Your task to perform on an android device: Show me recent news Image 0: 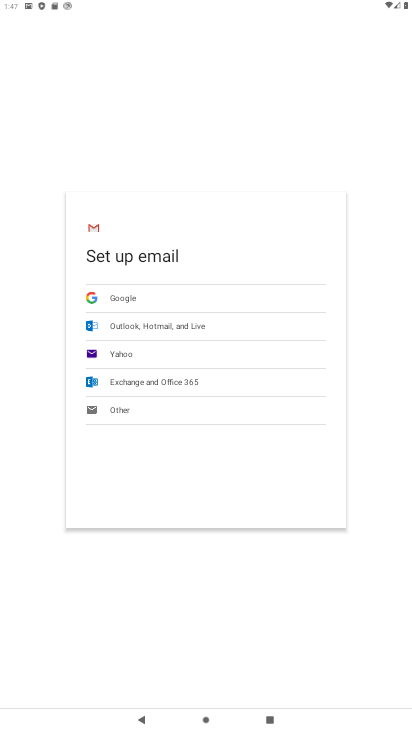
Step 0: press home button
Your task to perform on an android device: Show me recent news Image 1: 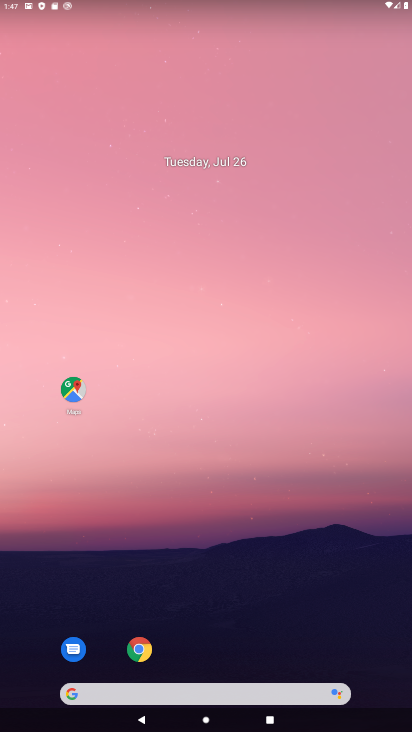
Step 1: drag from (177, 696) to (162, 128)
Your task to perform on an android device: Show me recent news Image 2: 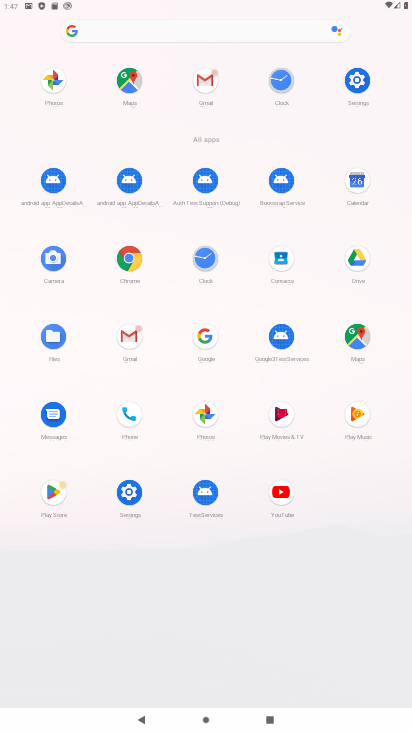
Step 2: click (127, 256)
Your task to perform on an android device: Show me recent news Image 3: 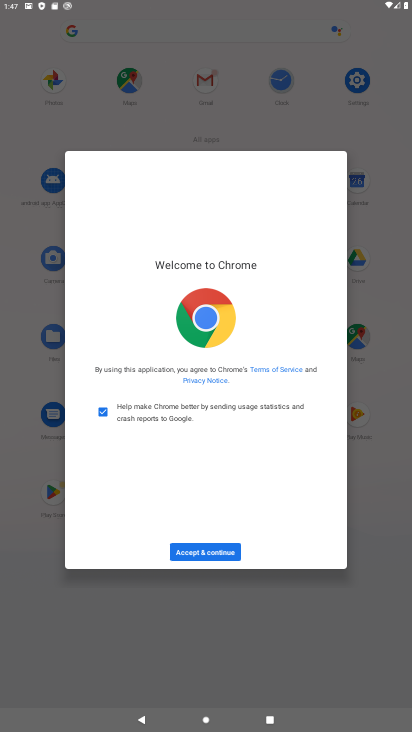
Step 3: click (196, 545)
Your task to perform on an android device: Show me recent news Image 4: 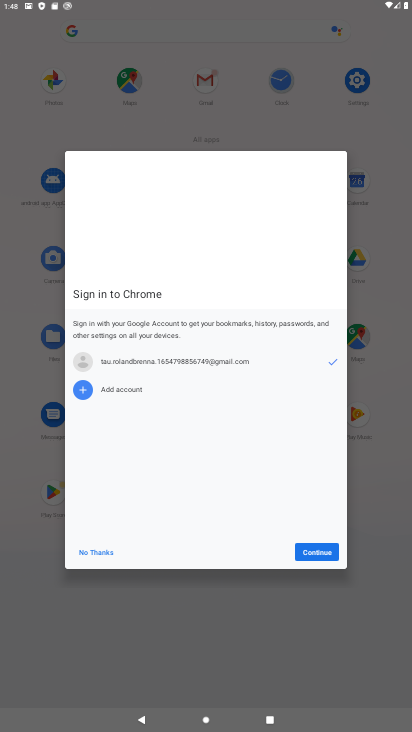
Step 4: click (308, 552)
Your task to perform on an android device: Show me recent news Image 5: 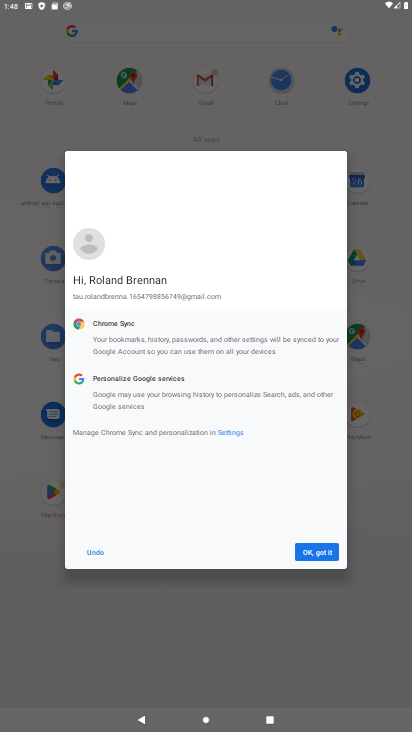
Step 5: click (308, 552)
Your task to perform on an android device: Show me recent news Image 6: 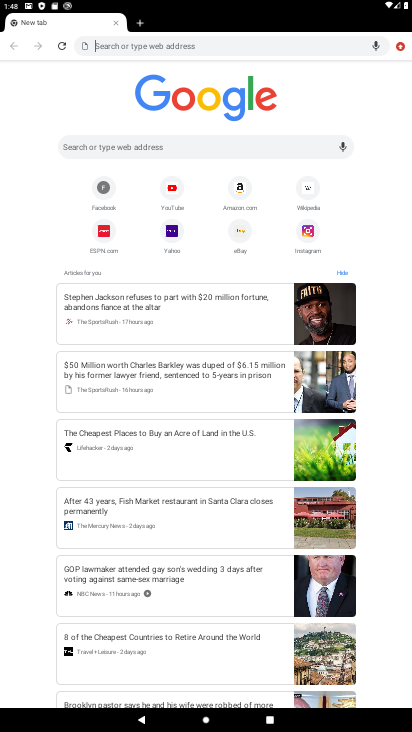
Step 6: click (236, 145)
Your task to perform on an android device: Show me recent news Image 7: 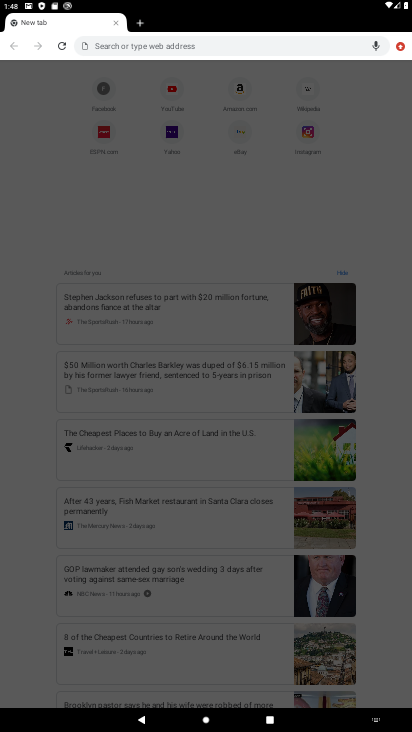
Step 7: type "recent news"
Your task to perform on an android device: Show me recent news Image 8: 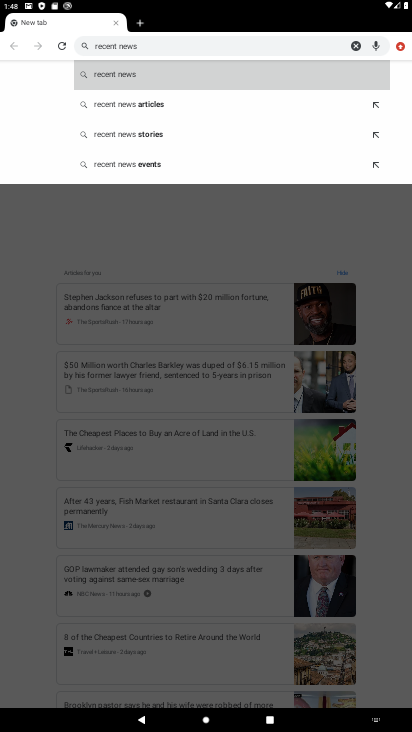
Step 8: click (139, 76)
Your task to perform on an android device: Show me recent news Image 9: 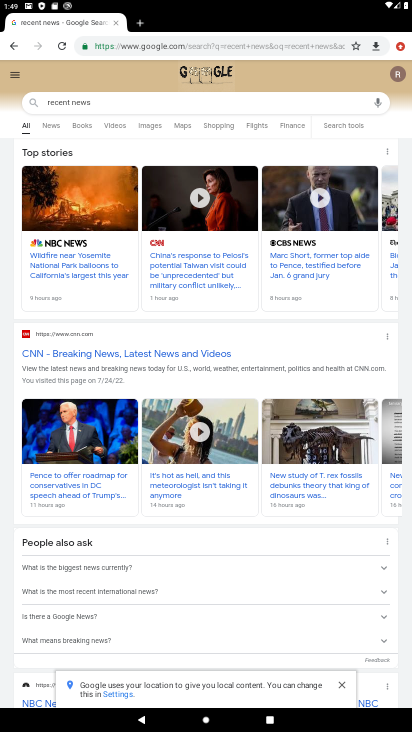
Step 9: click (114, 276)
Your task to perform on an android device: Show me recent news Image 10: 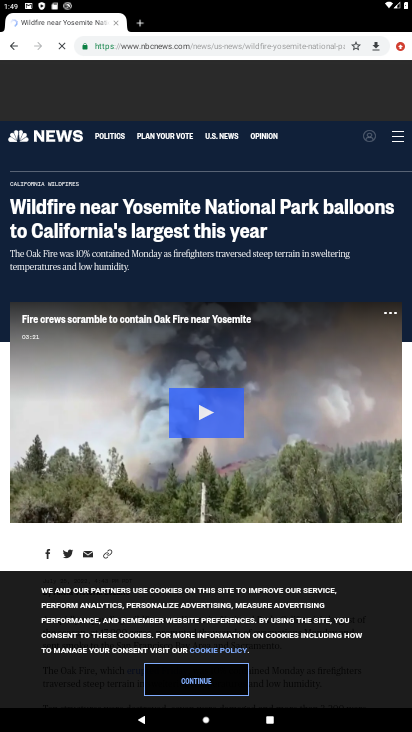
Step 10: task complete